Your task to perform on an android device: clear all cookies in the chrome app Image 0: 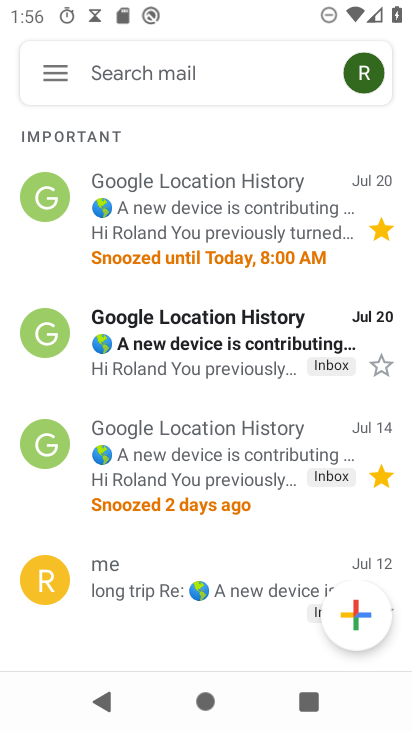
Step 0: press home button
Your task to perform on an android device: clear all cookies in the chrome app Image 1: 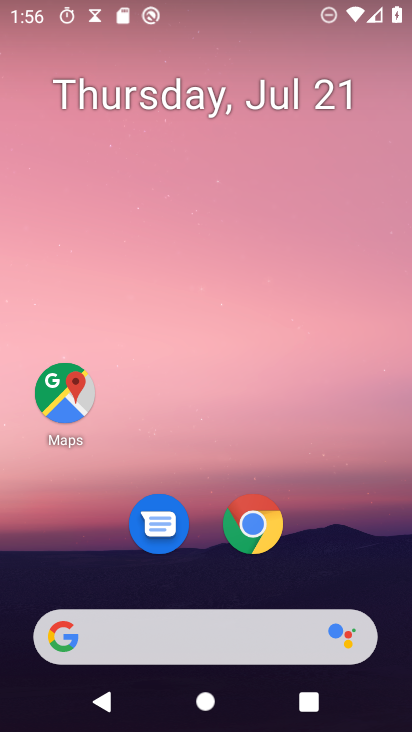
Step 1: click (251, 544)
Your task to perform on an android device: clear all cookies in the chrome app Image 2: 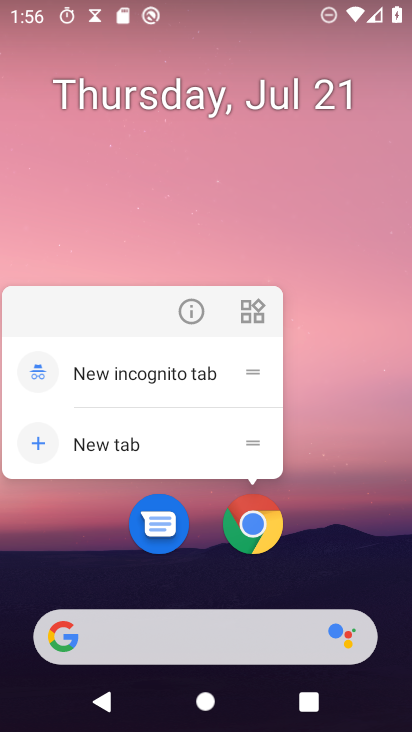
Step 2: click (262, 518)
Your task to perform on an android device: clear all cookies in the chrome app Image 3: 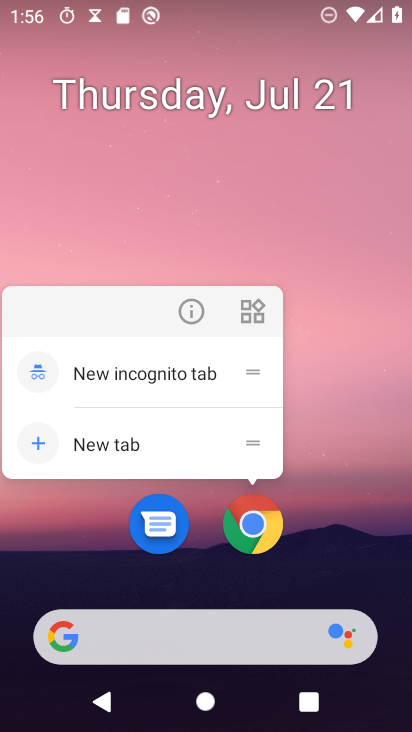
Step 3: click (243, 529)
Your task to perform on an android device: clear all cookies in the chrome app Image 4: 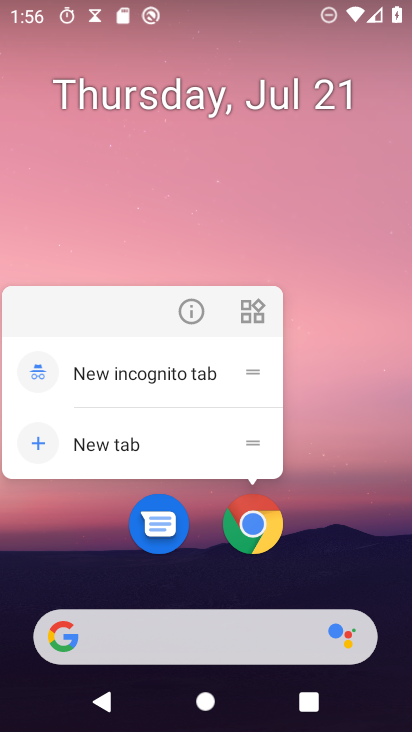
Step 4: click (258, 539)
Your task to perform on an android device: clear all cookies in the chrome app Image 5: 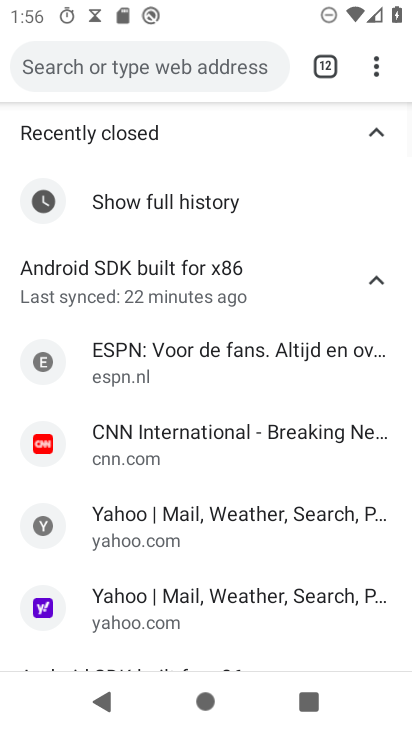
Step 5: drag from (368, 56) to (173, 558)
Your task to perform on an android device: clear all cookies in the chrome app Image 6: 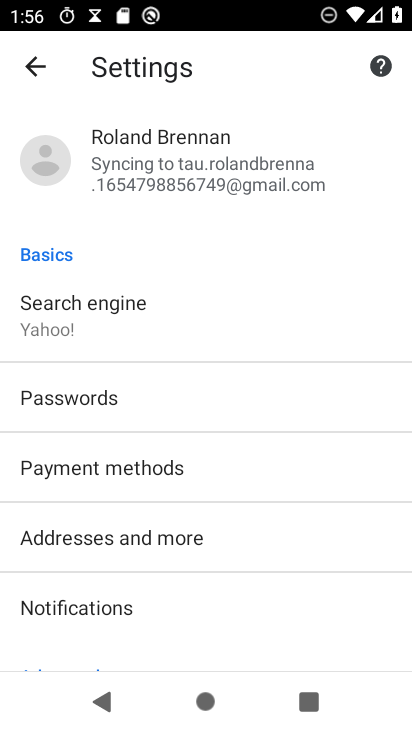
Step 6: drag from (255, 634) to (361, 210)
Your task to perform on an android device: clear all cookies in the chrome app Image 7: 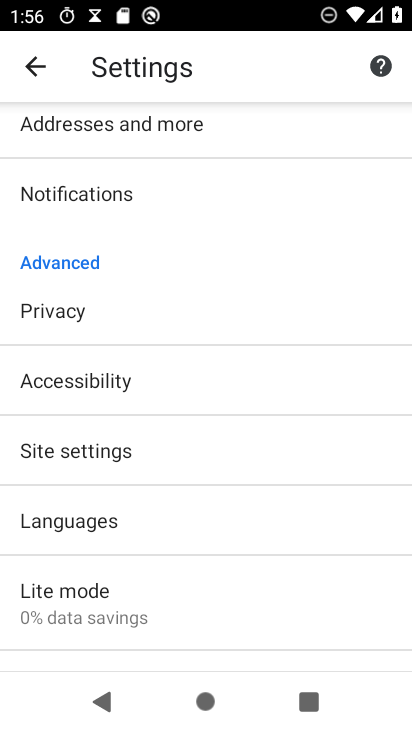
Step 7: click (62, 305)
Your task to perform on an android device: clear all cookies in the chrome app Image 8: 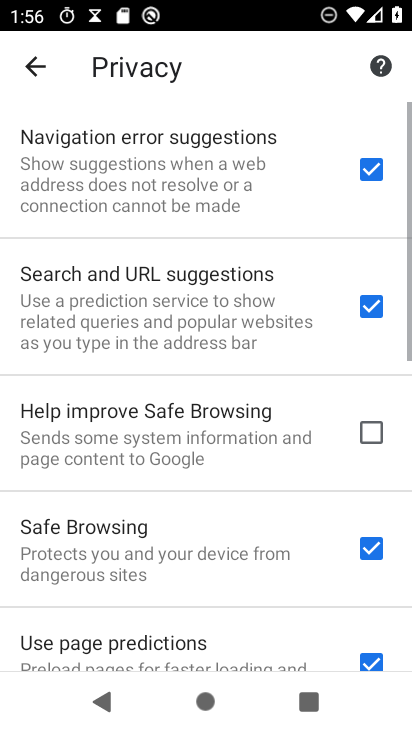
Step 8: drag from (230, 623) to (345, 103)
Your task to perform on an android device: clear all cookies in the chrome app Image 9: 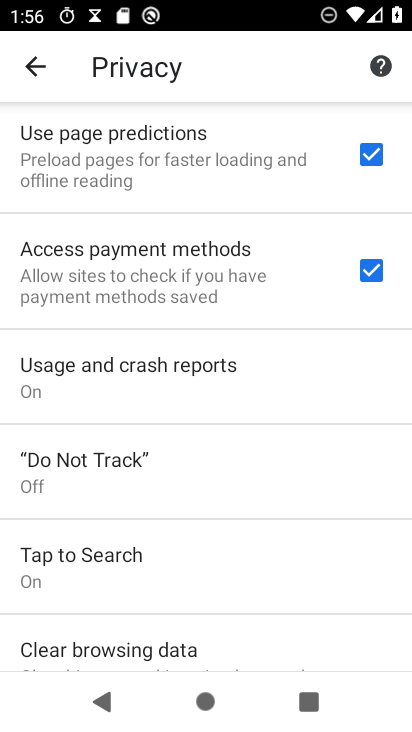
Step 9: drag from (199, 605) to (312, 82)
Your task to perform on an android device: clear all cookies in the chrome app Image 10: 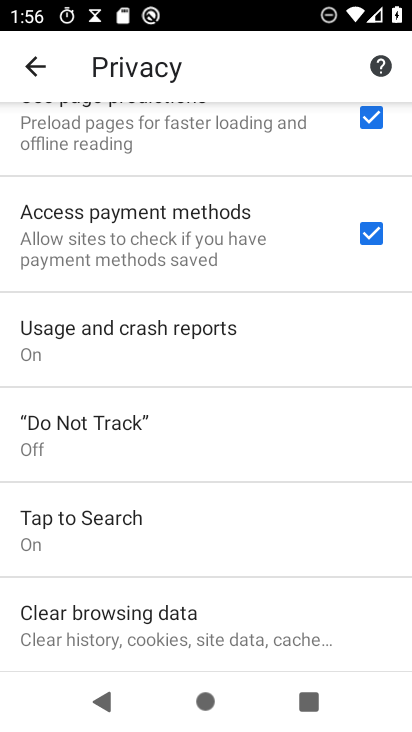
Step 10: click (136, 622)
Your task to perform on an android device: clear all cookies in the chrome app Image 11: 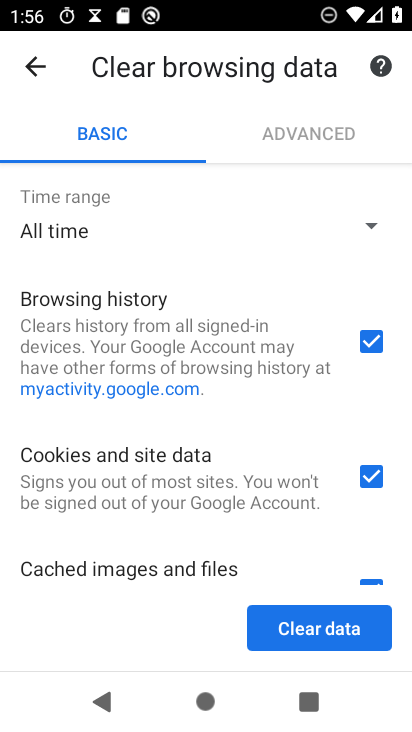
Step 11: drag from (300, 420) to (355, 197)
Your task to perform on an android device: clear all cookies in the chrome app Image 12: 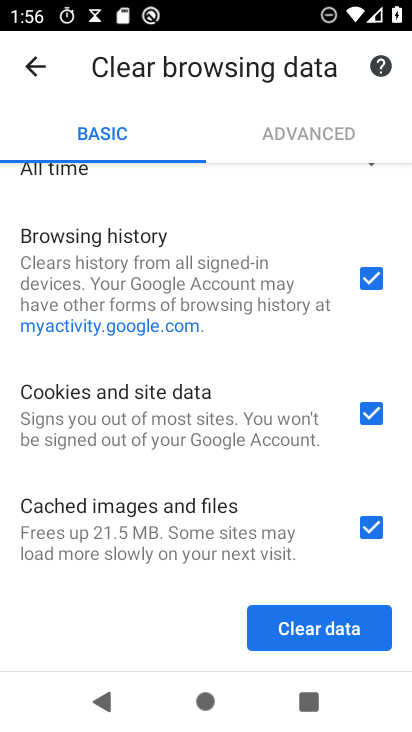
Step 12: click (376, 280)
Your task to perform on an android device: clear all cookies in the chrome app Image 13: 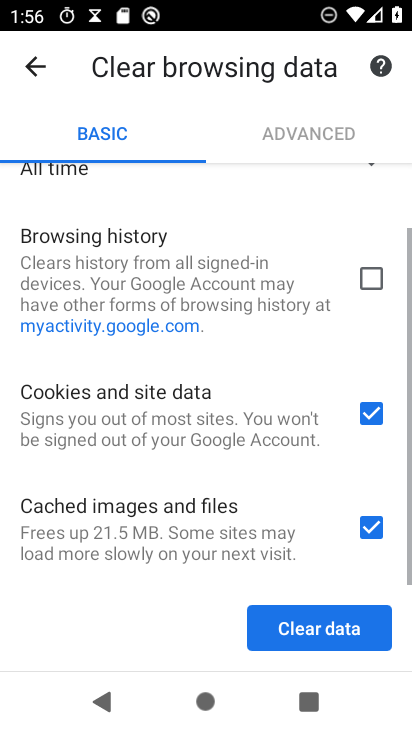
Step 13: click (366, 523)
Your task to perform on an android device: clear all cookies in the chrome app Image 14: 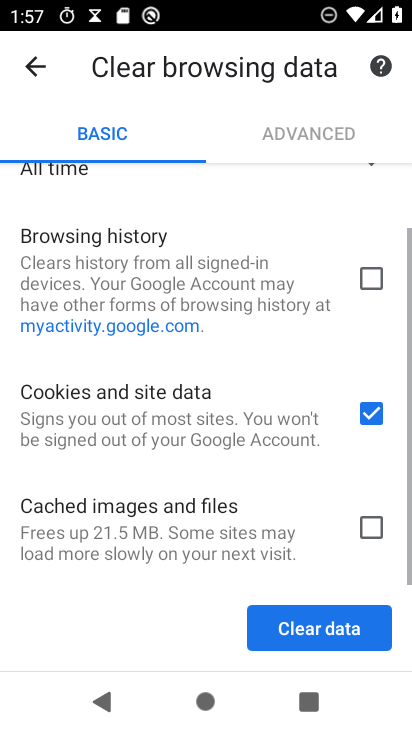
Step 14: click (326, 630)
Your task to perform on an android device: clear all cookies in the chrome app Image 15: 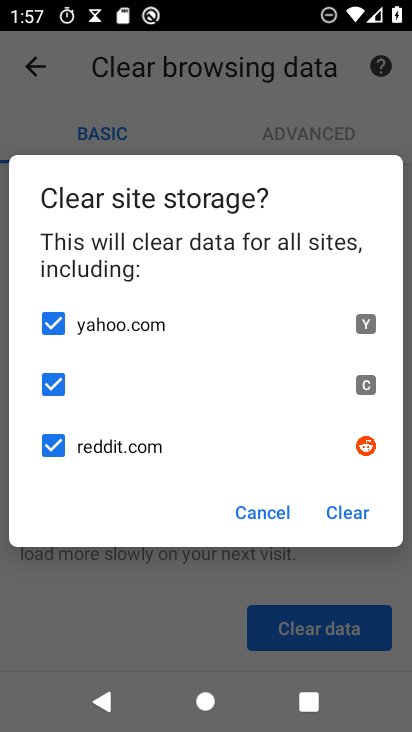
Step 15: click (339, 517)
Your task to perform on an android device: clear all cookies in the chrome app Image 16: 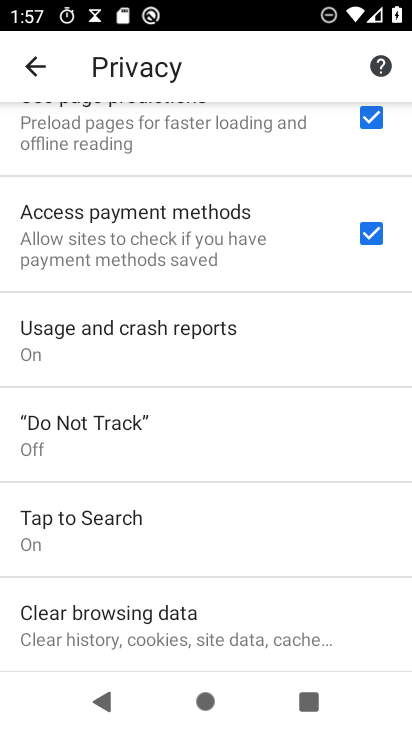
Step 16: task complete